Your task to perform on an android device: toggle sleep mode Image 0: 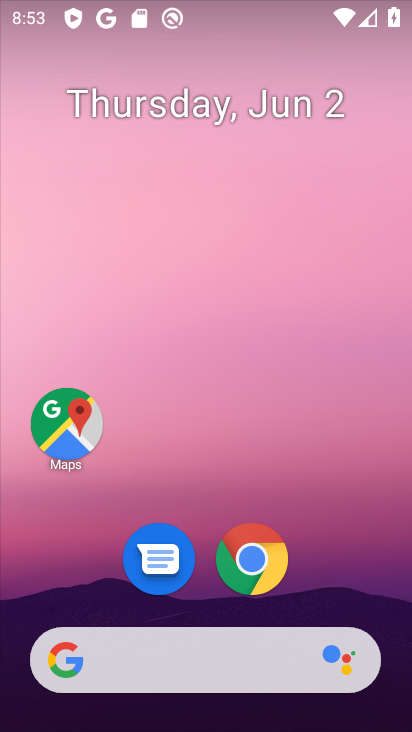
Step 0: drag from (211, 14) to (135, 621)
Your task to perform on an android device: toggle sleep mode Image 1: 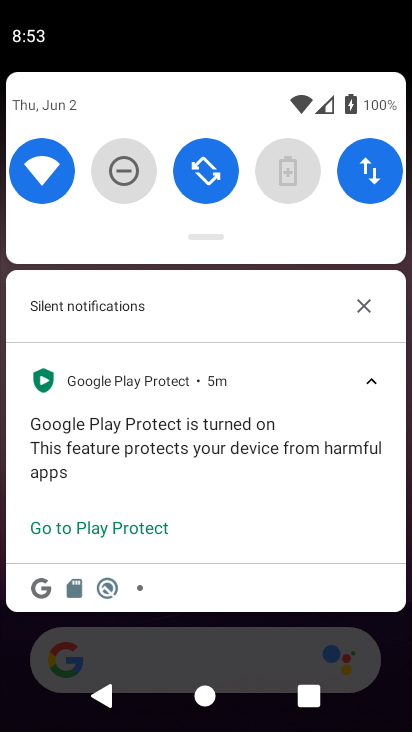
Step 1: drag from (203, 251) to (164, 619)
Your task to perform on an android device: toggle sleep mode Image 2: 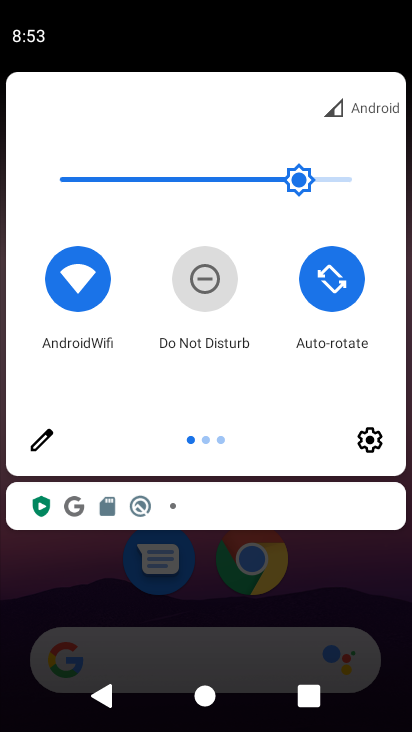
Step 2: click (46, 443)
Your task to perform on an android device: toggle sleep mode Image 3: 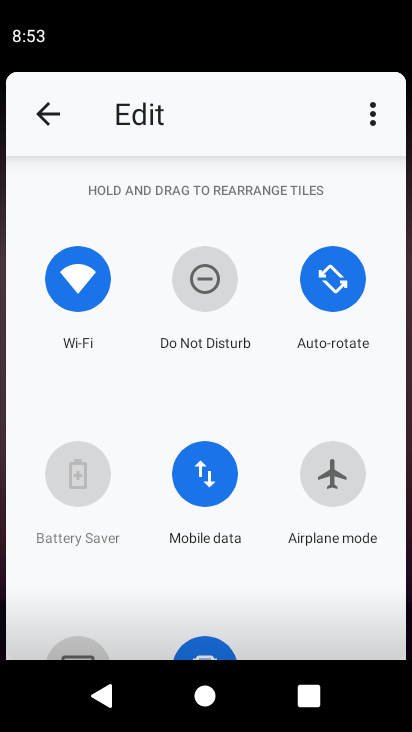
Step 3: task complete